Your task to perform on an android device: Go to network settings Image 0: 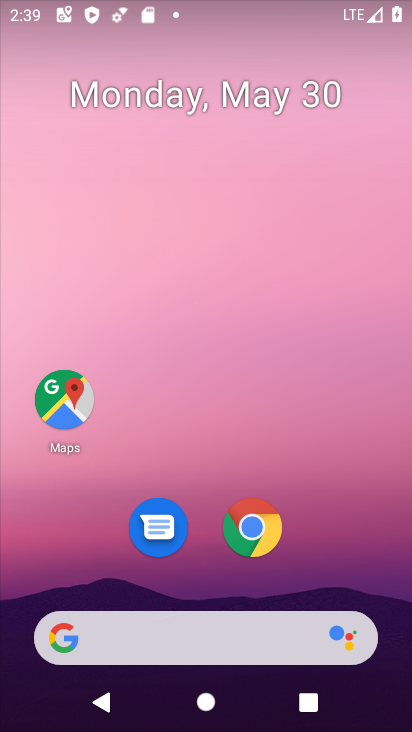
Step 0: drag from (326, 548) to (364, 53)
Your task to perform on an android device: Go to network settings Image 1: 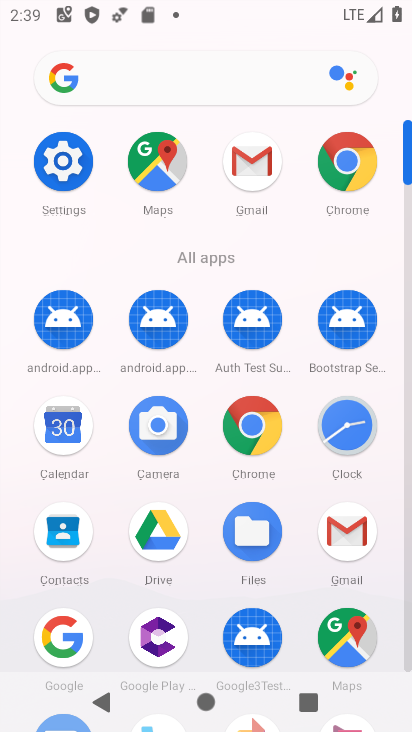
Step 1: click (52, 156)
Your task to perform on an android device: Go to network settings Image 2: 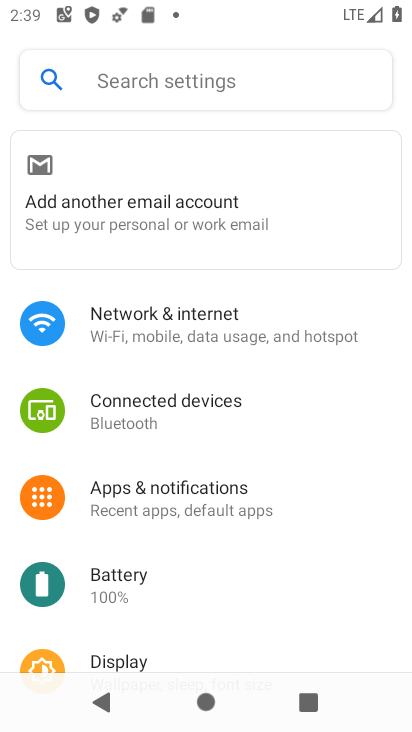
Step 2: click (191, 332)
Your task to perform on an android device: Go to network settings Image 3: 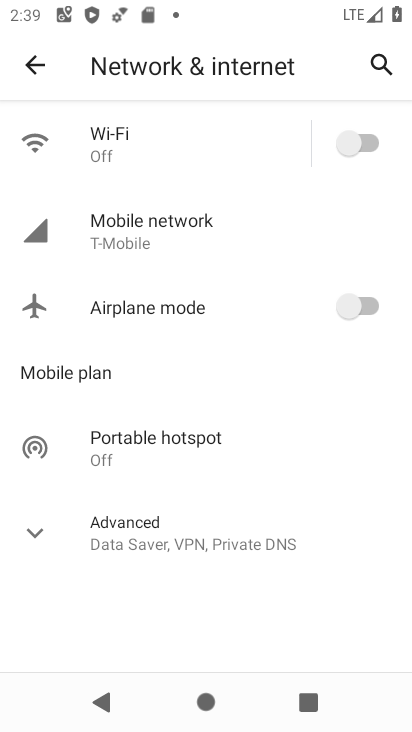
Step 3: task complete